Your task to perform on an android device: Search for vegetarian restaurants on Maps Image 0: 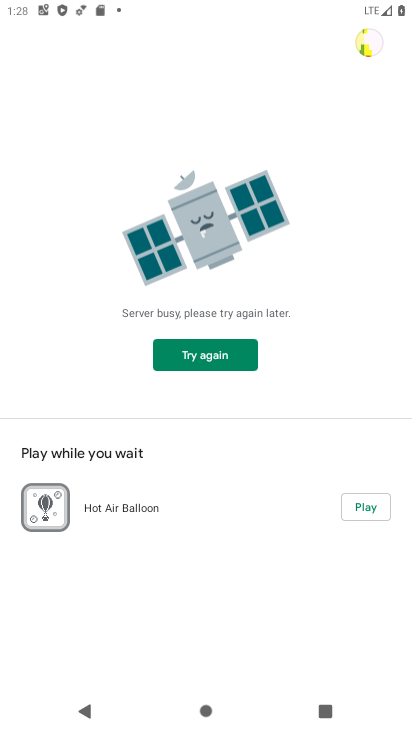
Step 0: press home button
Your task to perform on an android device: Search for vegetarian restaurants on Maps Image 1: 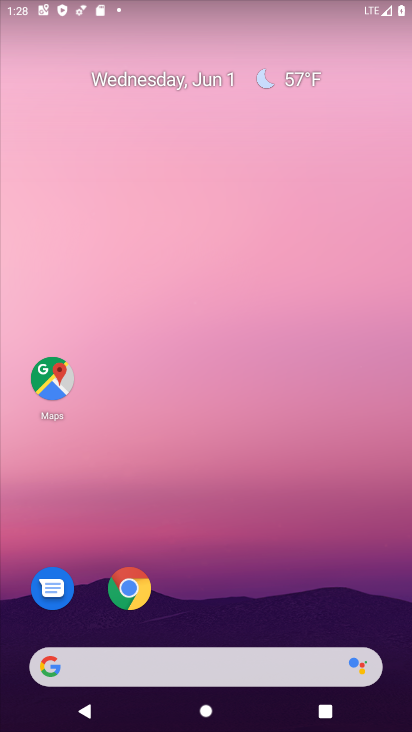
Step 1: click (47, 382)
Your task to perform on an android device: Search for vegetarian restaurants on Maps Image 2: 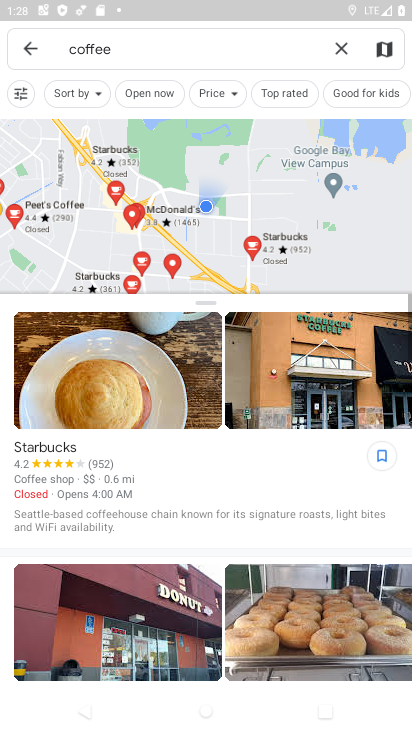
Step 2: click (347, 46)
Your task to perform on an android device: Search for vegetarian restaurants on Maps Image 3: 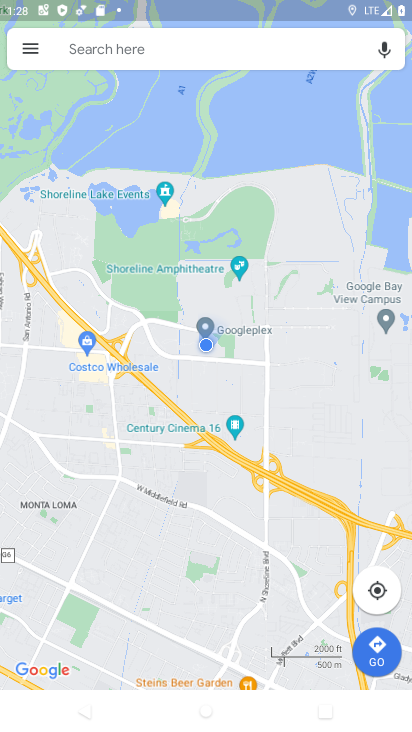
Step 3: click (127, 51)
Your task to perform on an android device: Search for vegetarian restaurants on Maps Image 4: 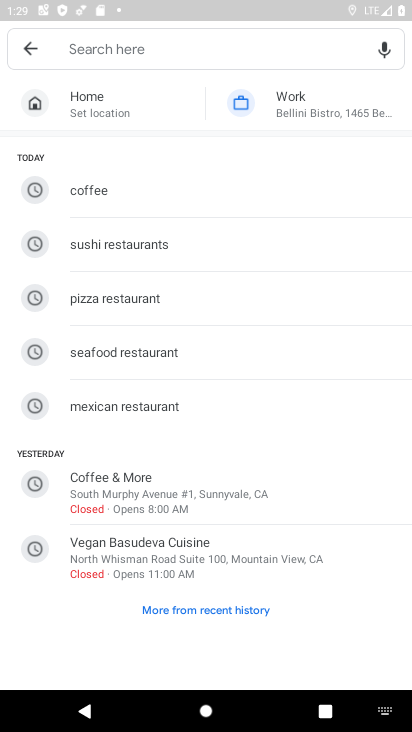
Step 4: type "vegetarian restaurants"
Your task to perform on an android device: Search for vegetarian restaurants on Maps Image 5: 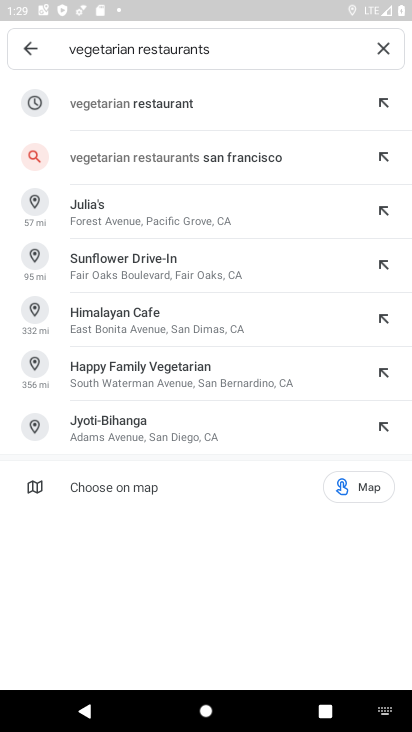
Step 5: click (141, 103)
Your task to perform on an android device: Search for vegetarian restaurants on Maps Image 6: 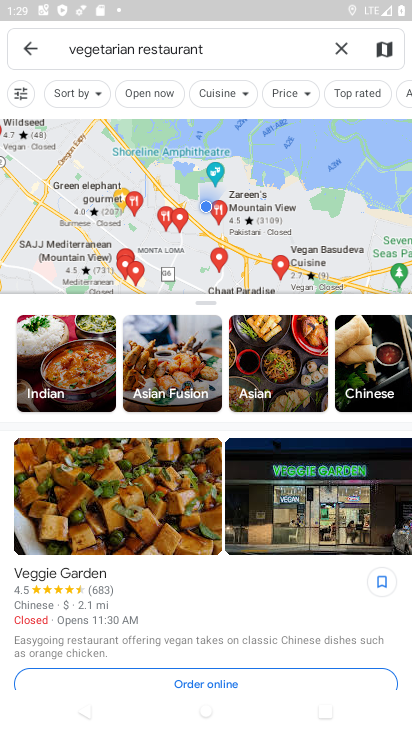
Step 6: task complete